Your task to perform on an android device: turn smart compose on in the gmail app Image 0: 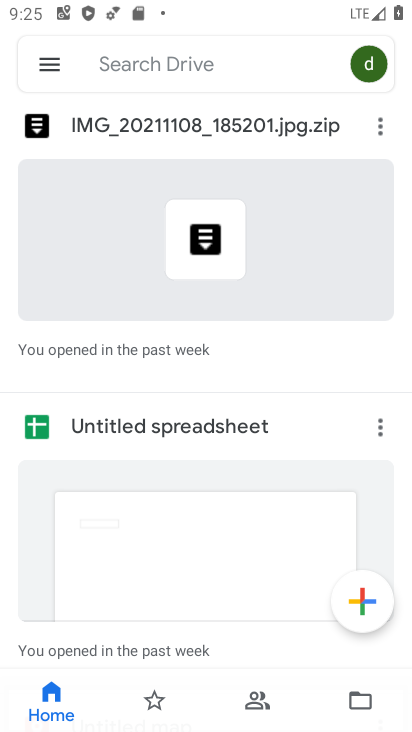
Step 0: press home button
Your task to perform on an android device: turn smart compose on in the gmail app Image 1: 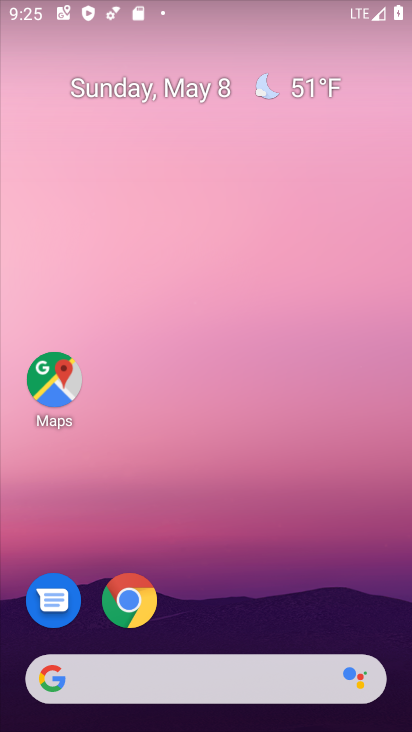
Step 1: drag from (351, 602) to (293, 7)
Your task to perform on an android device: turn smart compose on in the gmail app Image 2: 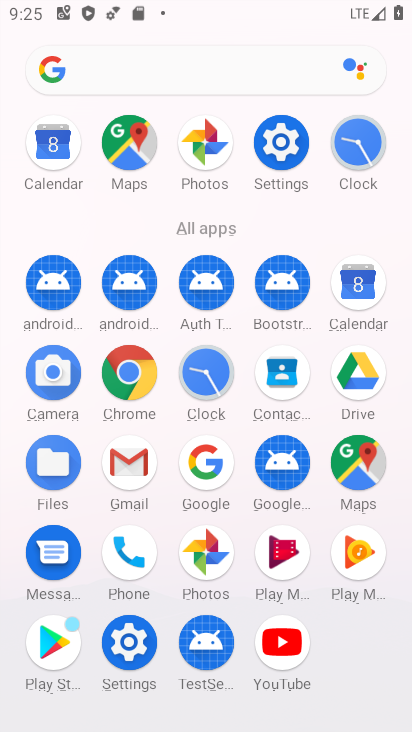
Step 2: click (128, 471)
Your task to perform on an android device: turn smart compose on in the gmail app Image 3: 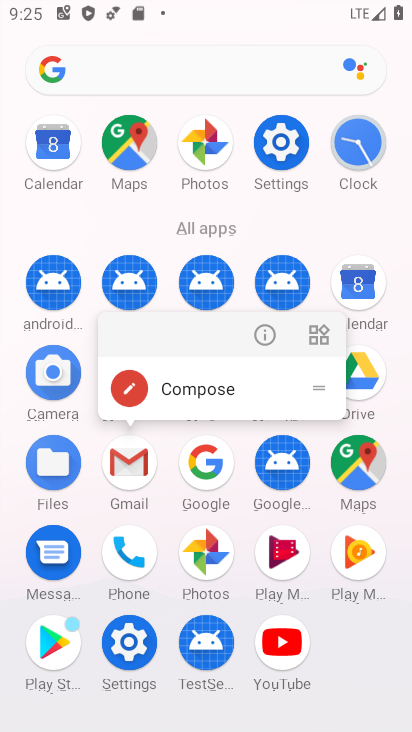
Step 3: click (136, 463)
Your task to perform on an android device: turn smart compose on in the gmail app Image 4: 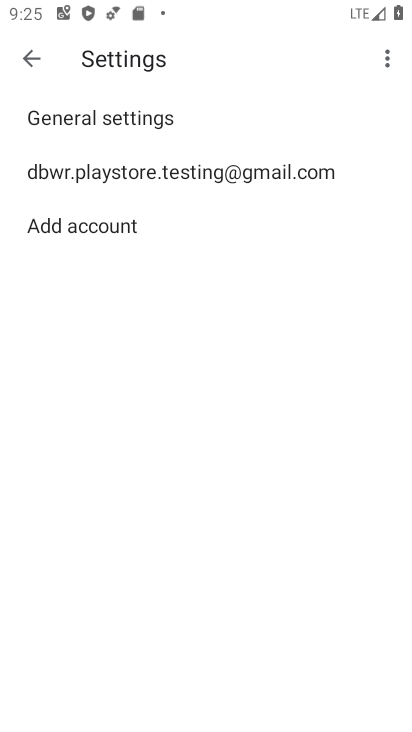
Step 4: click (107, 181)
Your task to perform on an android device: turn smart compose on in the gmail app Image 5: 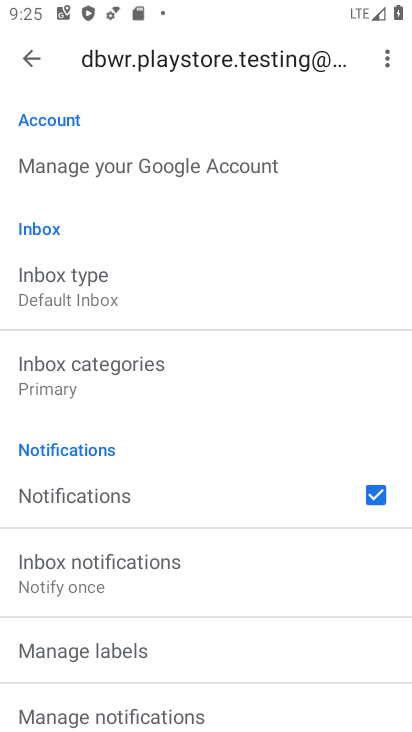
Step 5: task complete